Your task to perform on an android device: toggle location history Image 0: 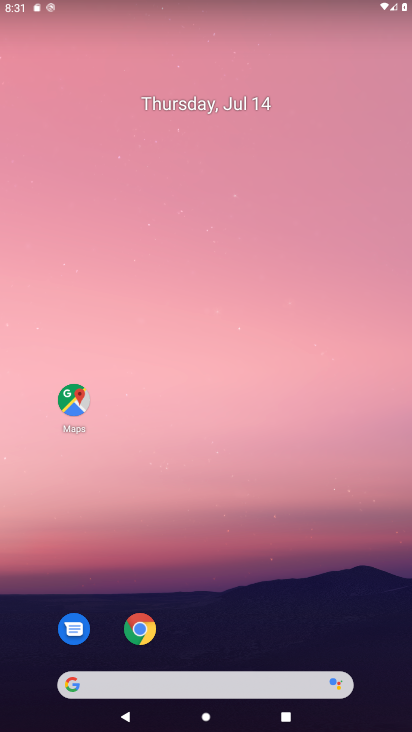
Step 0: drag from (226, 628) to (185, 0)
Your task to perform on an android device: toggle location history Image 1: 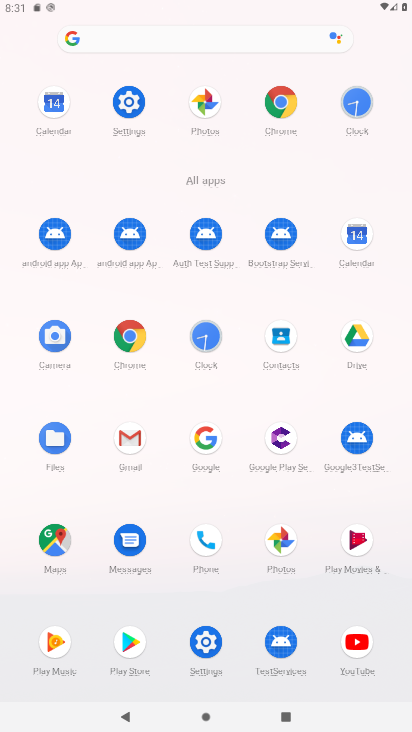
Step 1: click (207, 641)
Your task to perform on an android device: toggle location history Image 2: 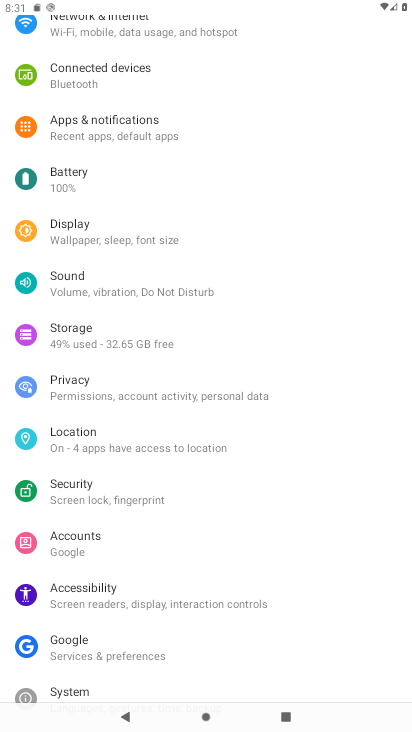
Step 2: click (110, 451)
Your task to perform on an android device: toggle location history Image 3: 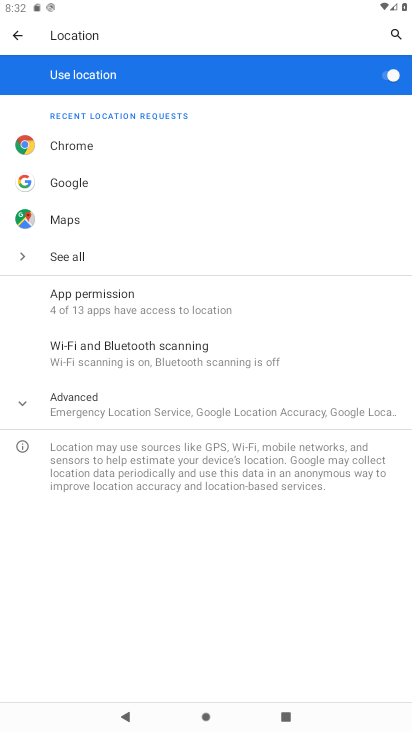
Step 3: click (100, 410)
Your task to perform on an android device: toggle location history Image 4: 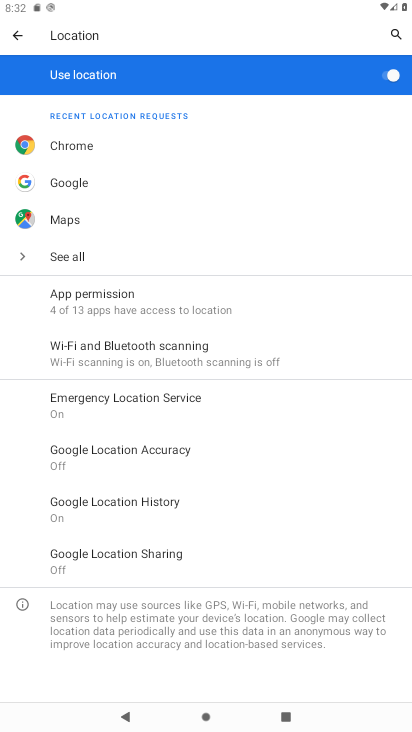
Step 4: click (142, 512)
Your task to perform on an android device: toggle location history Image 5: 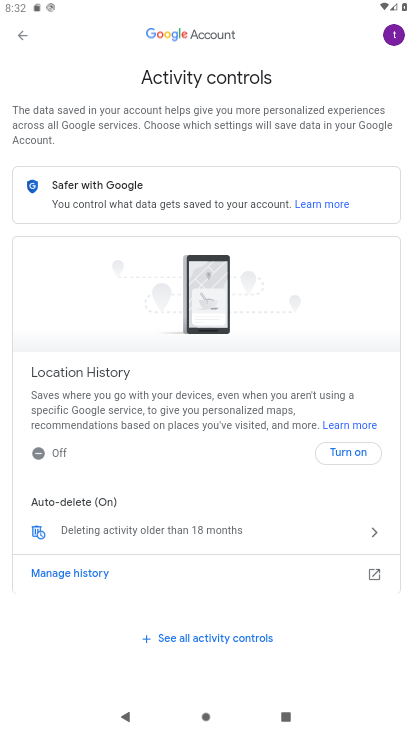
Step 5: click (360, 451)
Your task to perform on an android device: toggle location history Image 6: 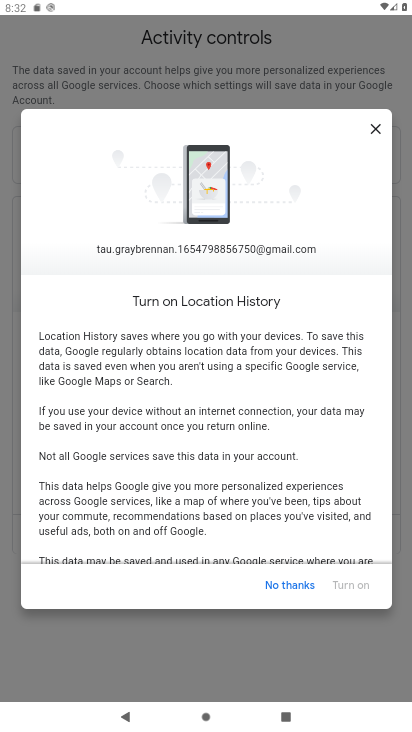
Step 6: drag from (265, 514) to (285, 12)
Your task to perform on an android device: toggle location history Image 7: 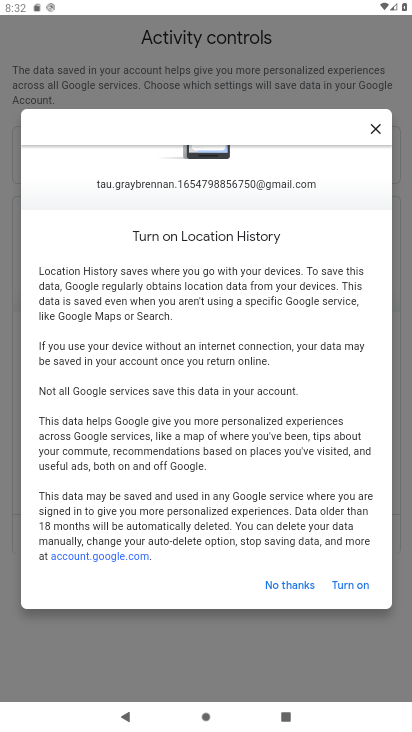
Step 7: click (351, 578)
Your task to perform on an android device: toggle location history Image 8: 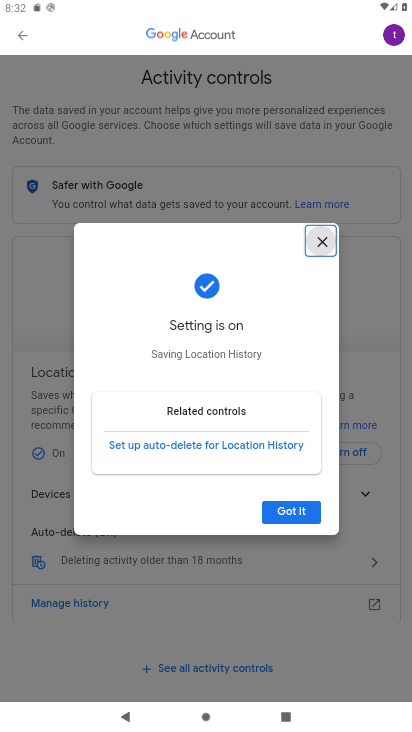
Step 8: click (287, 517)
Your task to perform on an android device: toggle location history Image 9: 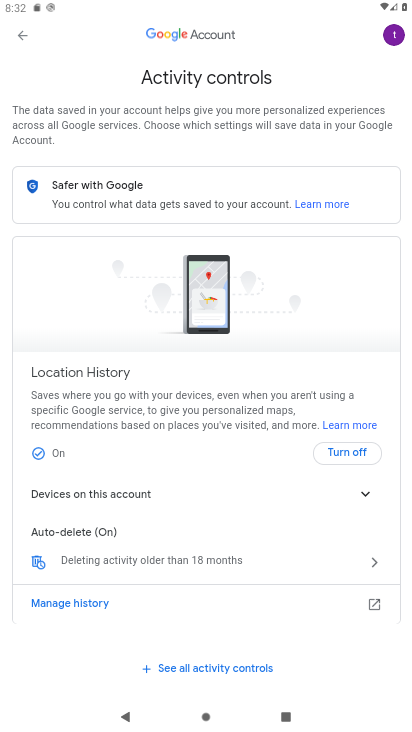
Step 9: task complete